Your task to perform on an android device: Check the weather Image 0: 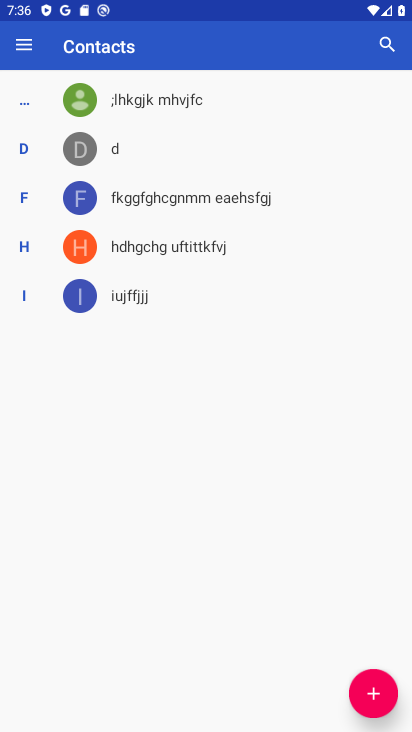
Step 0: press home button
Your task to perform on an android device: Check the weather Image 1: 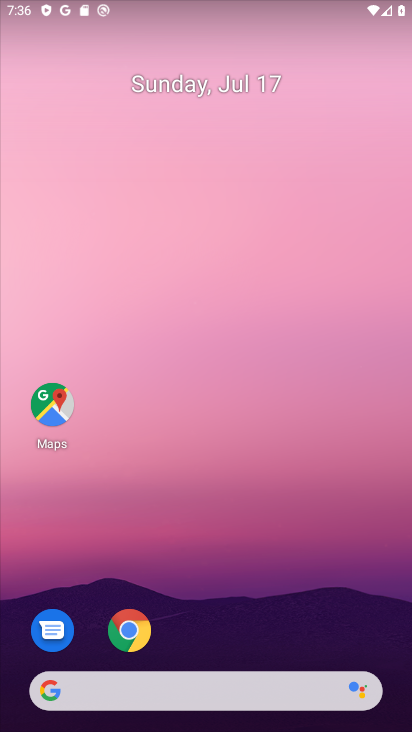
Step 1: click (122, 674)
Your task to perform on an android device: Check the weather Image 2: 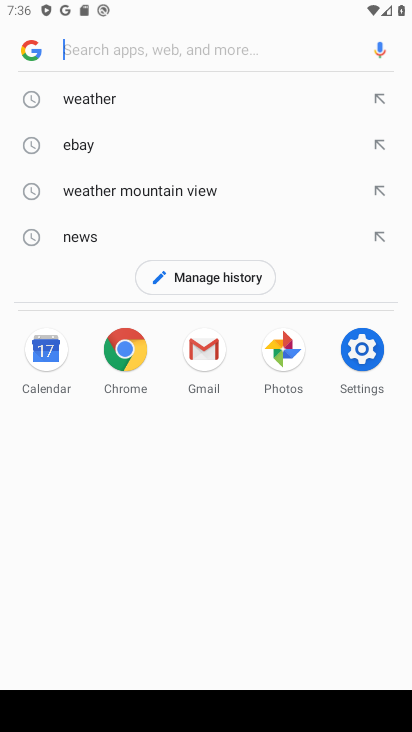
Step 2: click (92, 98)
Your task to perform on an android device: Check the weather Image 3: 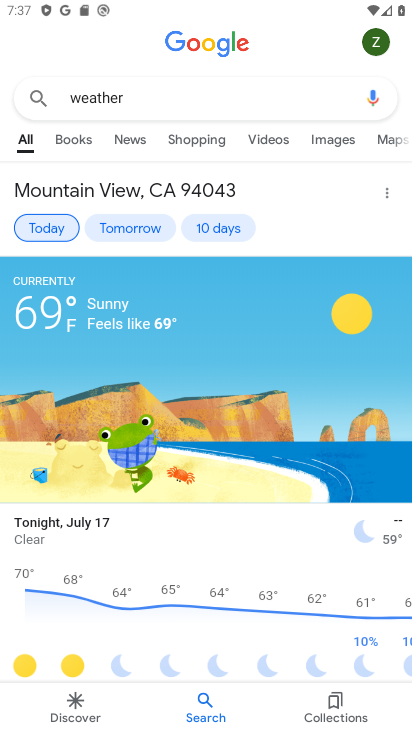
Step 3: task complete